Your task to perform on an android device: Go to Android settings Image 0: 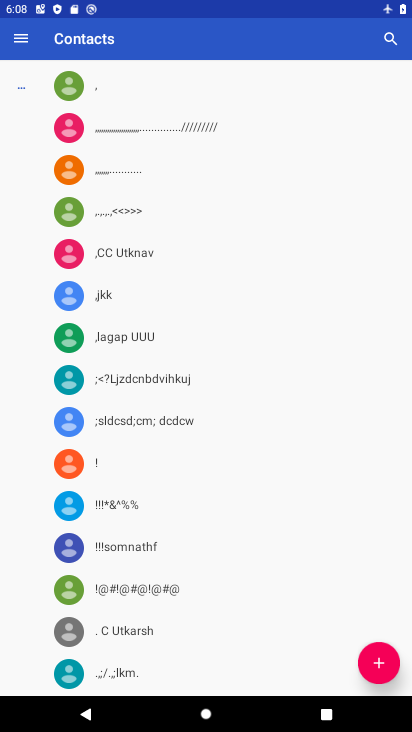
Step 0: press home button
Your task to perform on an android device: Go to Android settings Image 1: 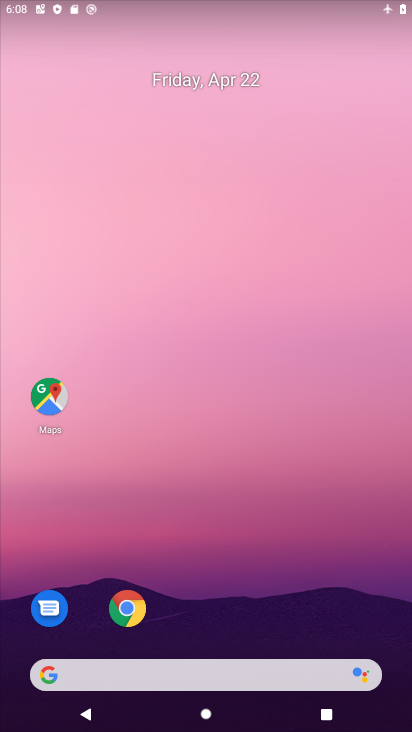
Step 1: drag from (314, 593) to (244, 155)
Your task to perform on an android device: Go to Android settings Image 2: 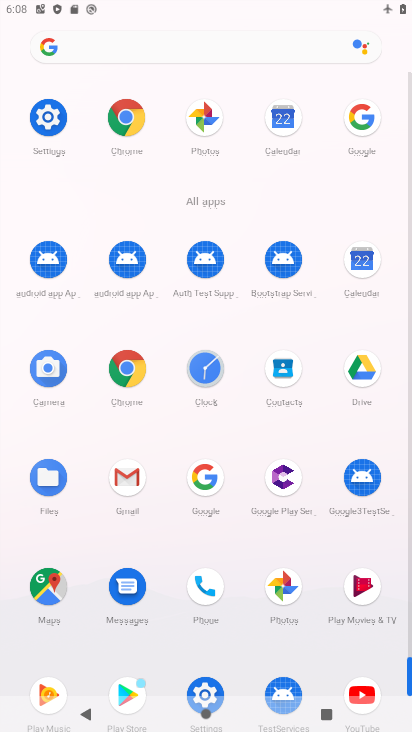
Step 2: drag from (232, 655) to (246, 312)
Your task to perform on an android device: Go to Android settings Image 3: 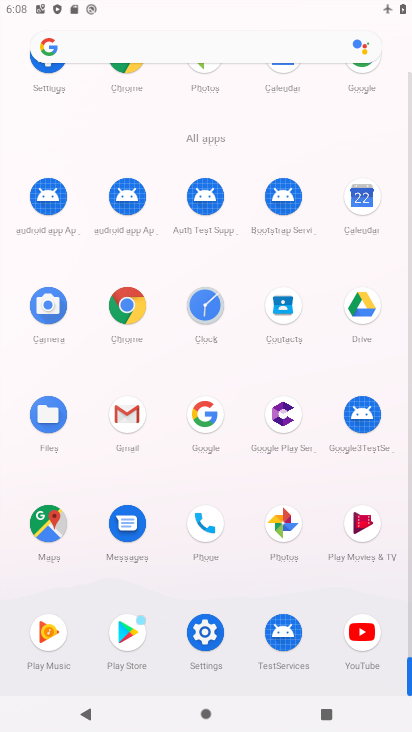
Step 3: click (205, 637)
Your task to perform on an android device: Go to Android settings Image 4: 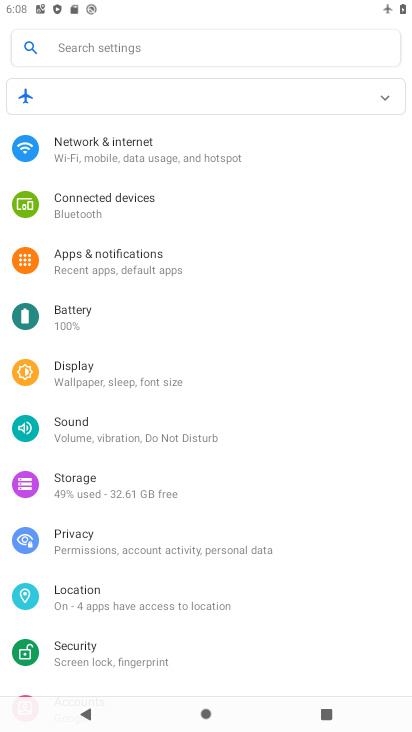
Step 4: drag from (176, 582) to (188, 209)
Your task to perform on an android device: Go to Android settings Image 5: 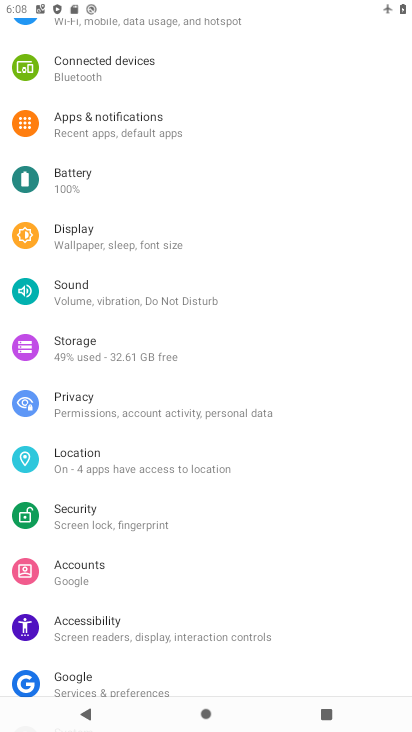
Step 5: drag from (153, 583) to (156, 253)
Your task to perform on an android device: Go to Android settings Image 6: 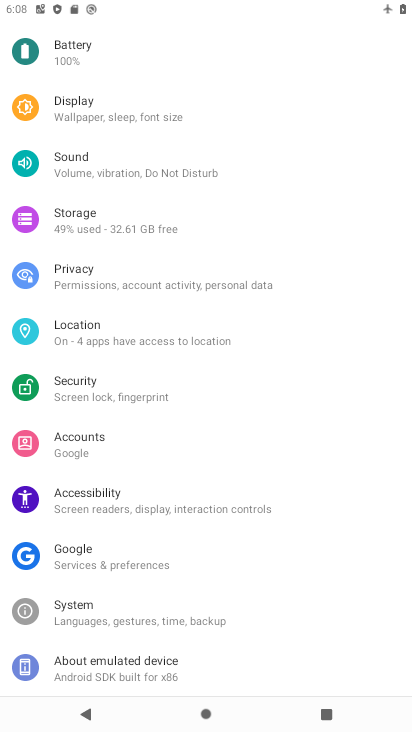
Step 6: click (108, 663)
Your task to perform on an android device: Go to Android settings Image 7: 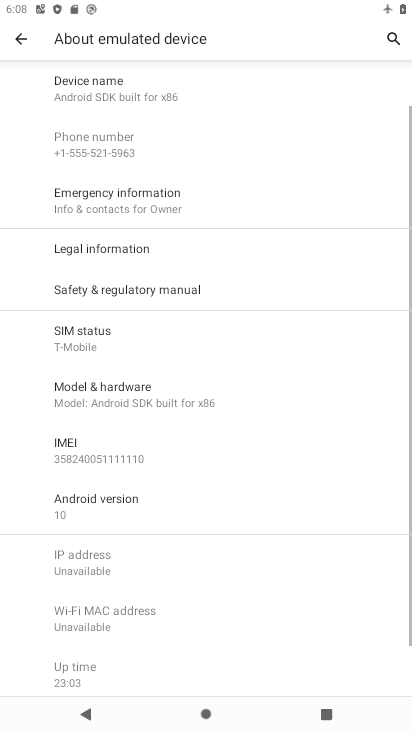
Step 7: click (83, 518)
Your task to perform on an android device: Go to Android settings Image 8: 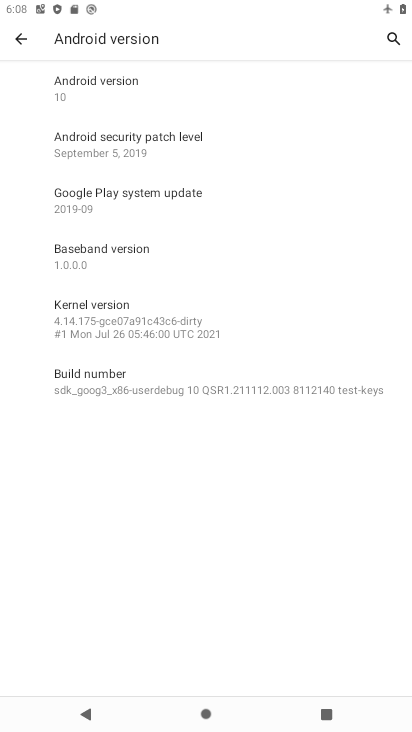
Step 8: click (296, 393)
Your task to perform on an android device: Go to Android settings Image 9: 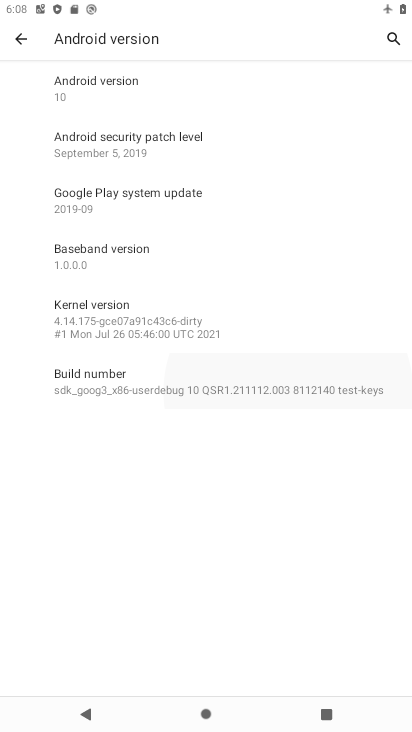
Step 9: task complete